Your task to perform on an android device: change notifications settings Image 0: 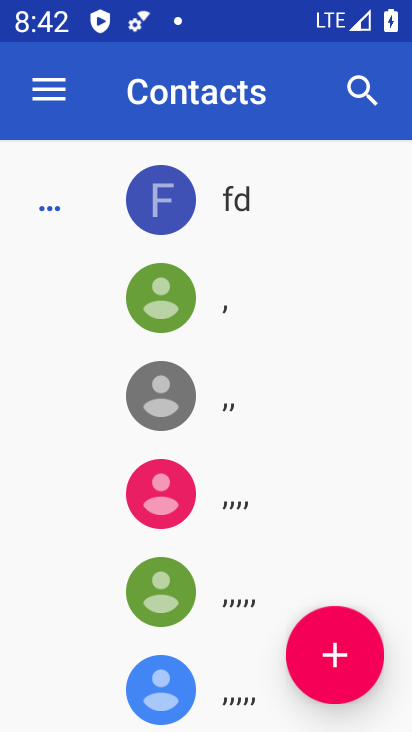
Step 0: press home button
Your task to perform on an android device: change notifications settings Image 1: 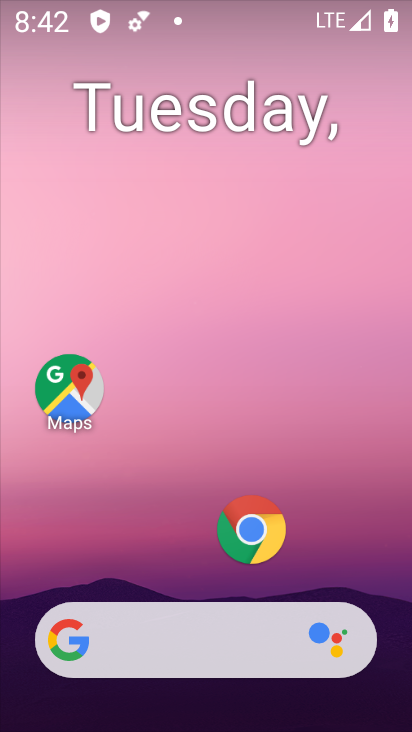
Step 1: drag from (195, 571) to (231, 74)
Your task to perform on an android device: change notifications settings Image 2: 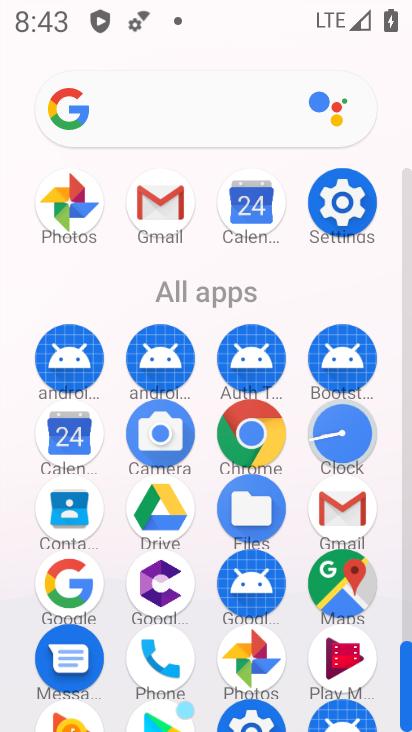
Step 2: click (346, 187)
Your task to perform on an android device: change notifications settings Image 3: 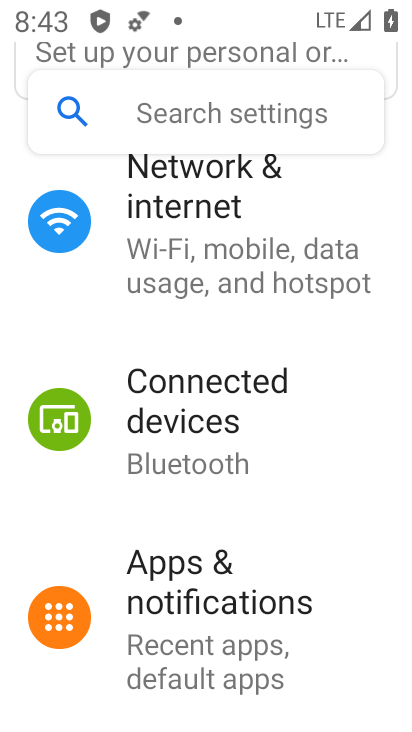
Step 3: click (263, 572)
Your task to perform on an android device: change notifications settings Image 4: 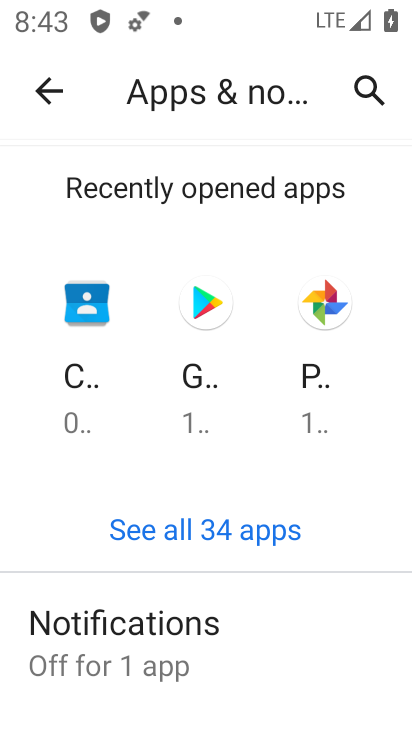
Step 4: click (216, 643)
Your task to perform on an android device: change notifications settings Image 5: 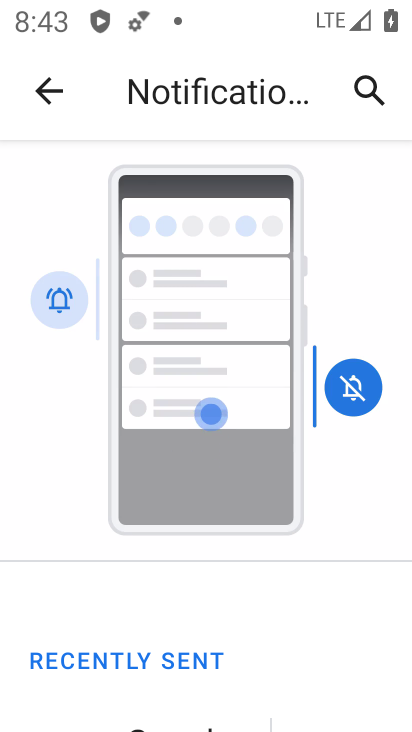
Step 5: drag from (221, 676) to (227, 136)
Your task to perform on an android device: change notifications settings Image 6: 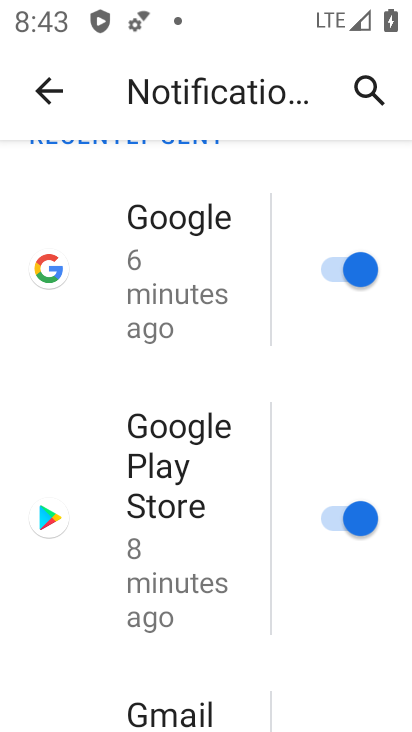
Step 6: drag from (222, 658) to (229, 168)
Your task to perform on an android device: change notifications settings Image 7: 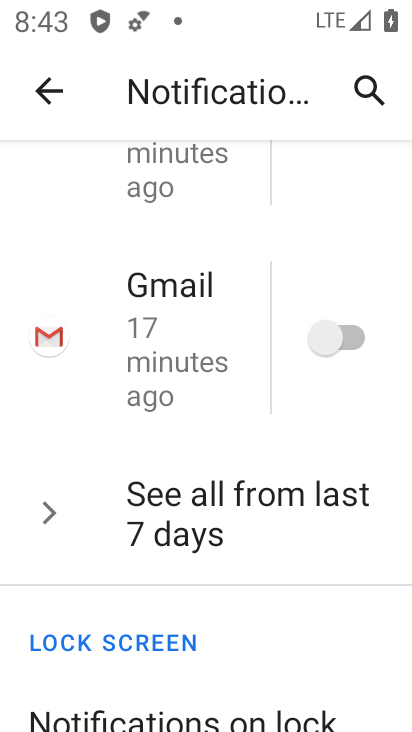
Step 7: drag from (164, 689) to (237, 94)
Your task to perform on an android device: change notifications settings Image 8: 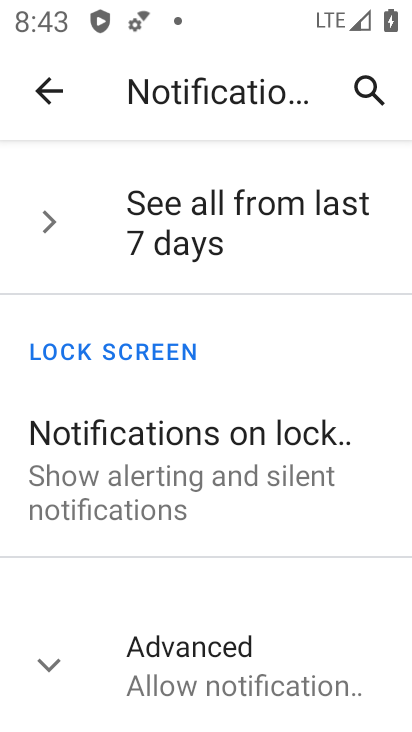
Step 8: click (48, 654)
Your task to perform on an android device: change notifications settings Image 9: 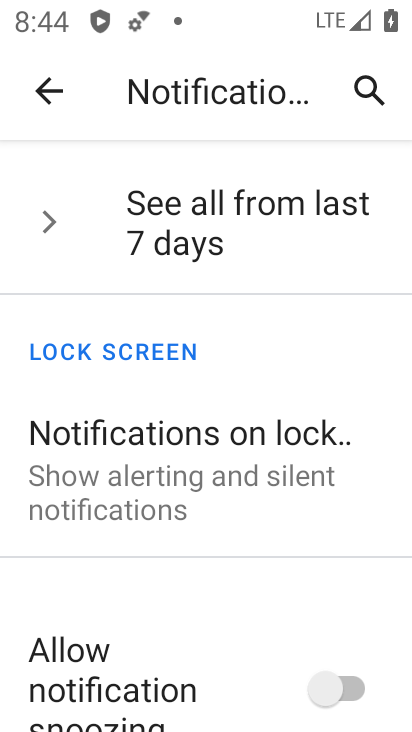
Step 9: task complete